Your task to perform on an android device: open app "Nova Launcher" Image 0: 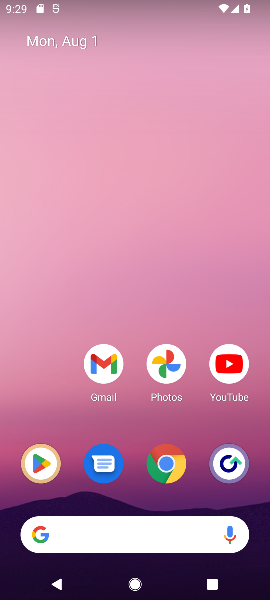
Step 0: click (42, 463)
Your task to perform on an android device: open app "Nova Launcher" Image 1: 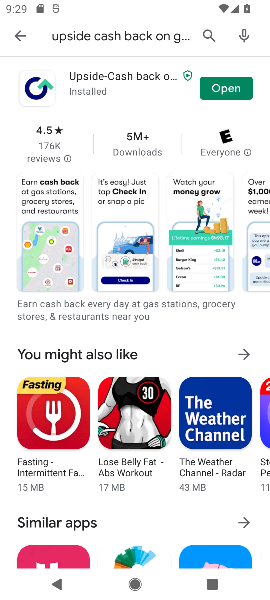
Step 1: click (210, 34)
Your task to perform on an android device: open app "Nova Launcher" Image 2: 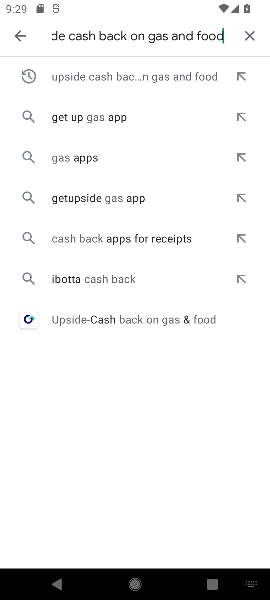
Step 2: click (243, 34)
Your task to perform on an android device: open app "Nova Launcher" Image 3: 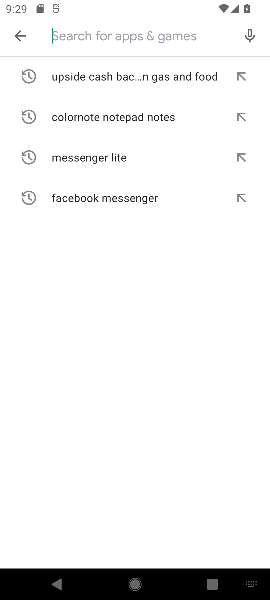
Step 3: click (64, 33)
Your task to perform on an android device: open app "Nova Launcher" Image 4: 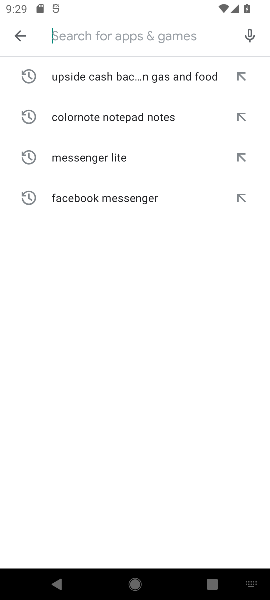
Step 4: type "nova launcher"
Your task to perform on an android device: open app "Nova Launcher" Image 5: 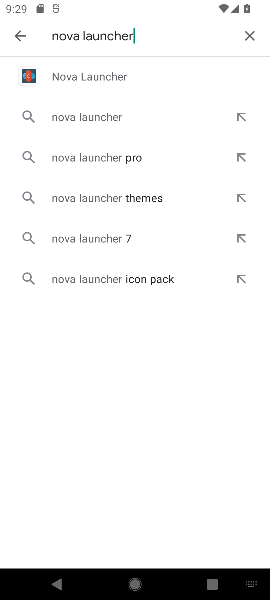
Step 5: click (90, 69)
Your task to perform on an android device: open app "Nova Launcher" Image 6: 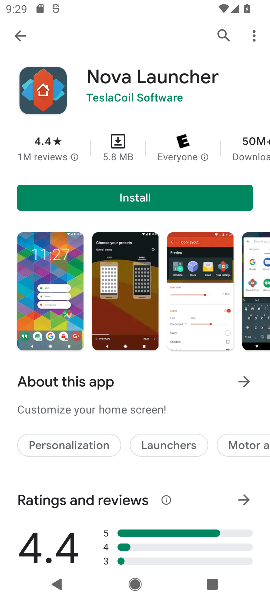
Step 6: task complete